Your task to perform on an android device: Open Android settings Image 0: 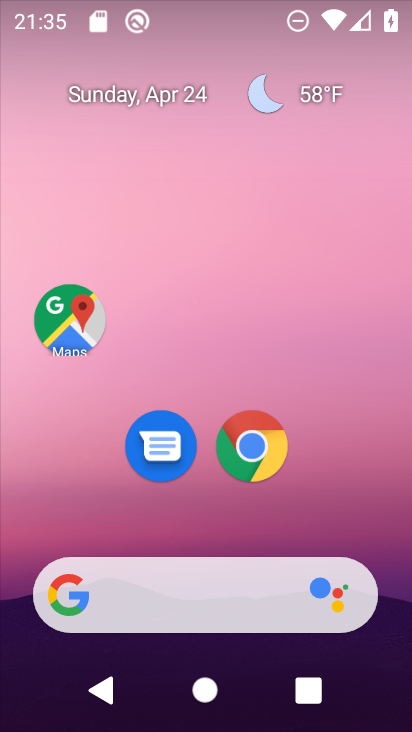
Step 0: drag from (165, 599) to (352, 32)
Your task to perform on an android device: Open Android settings Image 1: 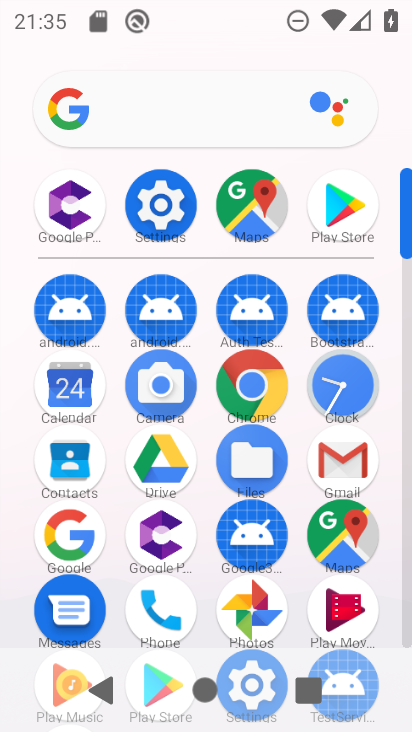
Step 1: click (171, 209)
Your task to perform on an android device: Open Android settings Image 2: 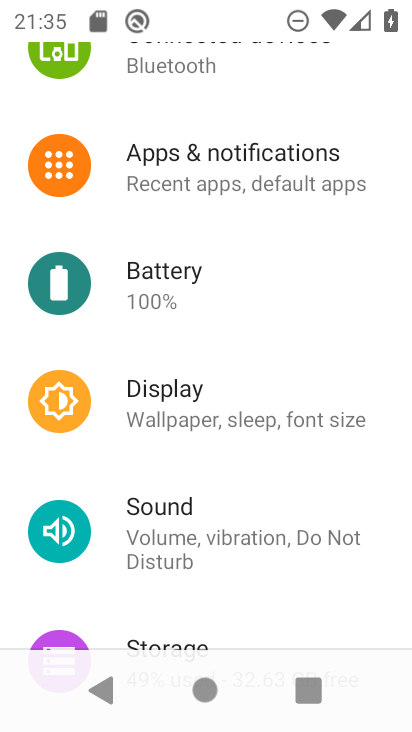
Step 2: task complete